Your task to perform on an android device: toggle notification dots Image 0: 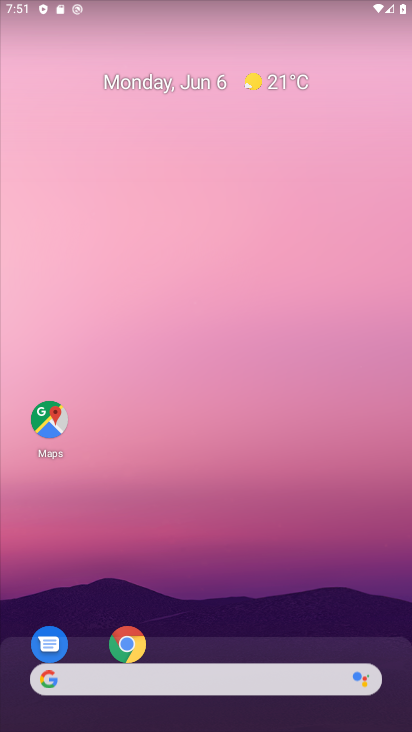
Step 0: drag from (204, 672) to (186, 67)
Your task to perform on an android device: toggle notification dots Image 1: 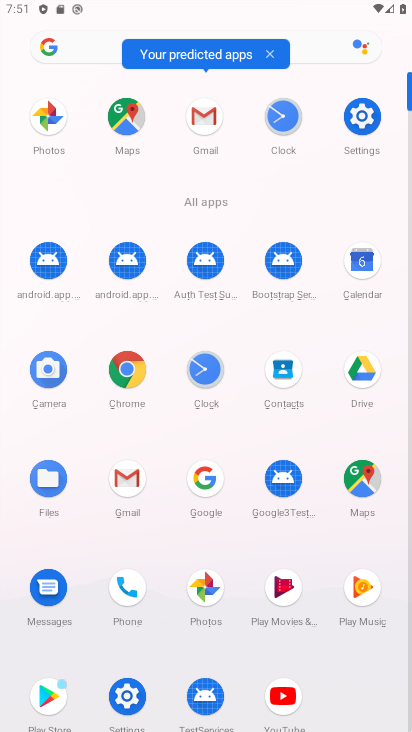
Step 1: click (355, 122)
Your task to perform on an android device: toggle notification dots Image 2: 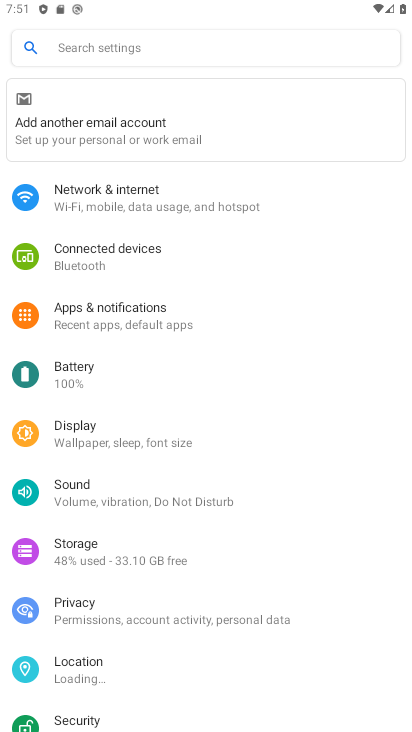
Step 2: drag from (147, 243) to (144, 90)
Your task to perform on an android device: toggle notification dots Image 3: 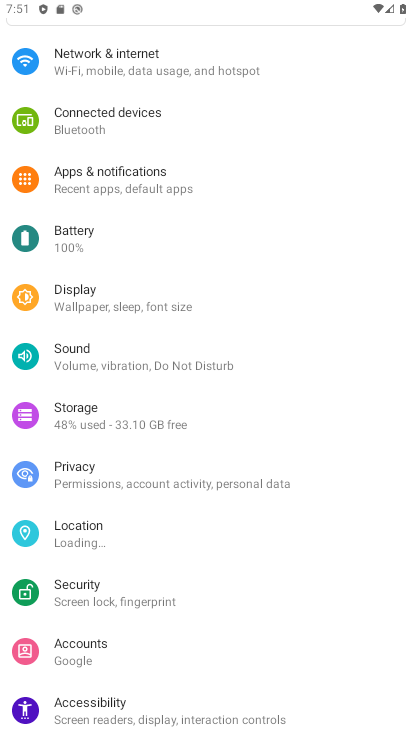
Step 3: click (116, 164)
Your task to perform on an android device: toggle notification dots Image 4: 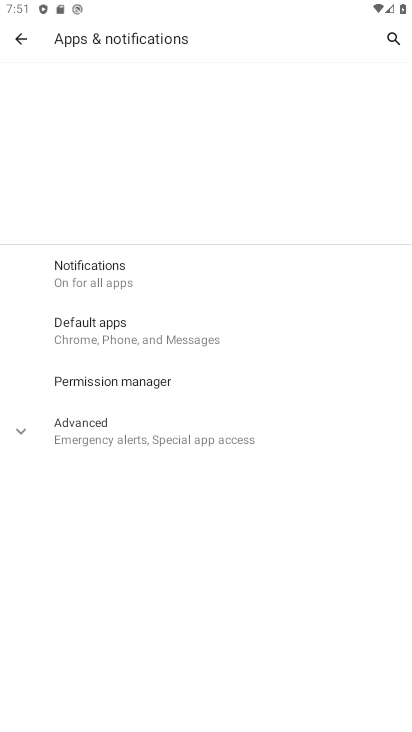
Step 4: click (143, 442)
Your task to perform on an android device: toggle notification dots Image 5: 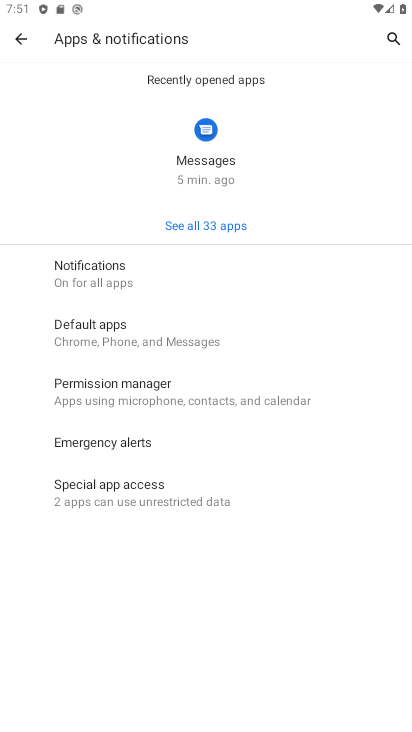
Step 5: click (88, 270)
Your task to perform on an android device: toggle notification dots Image 6: 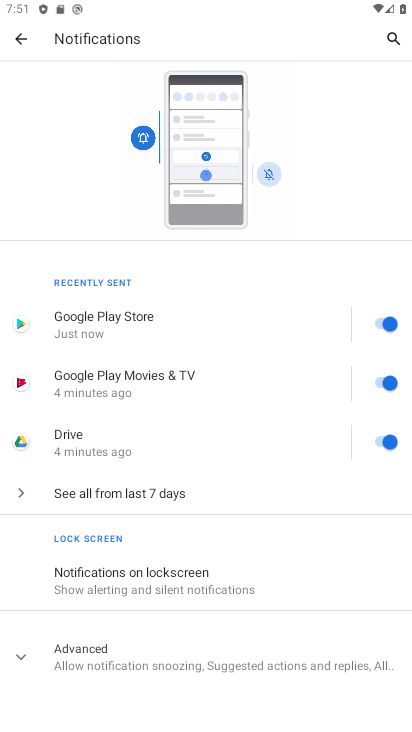
Step 6: drag from (68, 579) to (42, 296)
Your task to perform on an android device: toggle notification dots Image 7: 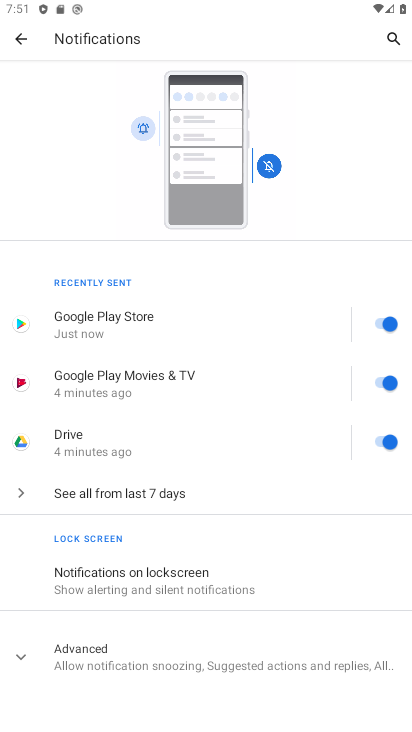
Step 7: click (73, 633)
Your task to perform on an android device: toggle notification dots Image 8: 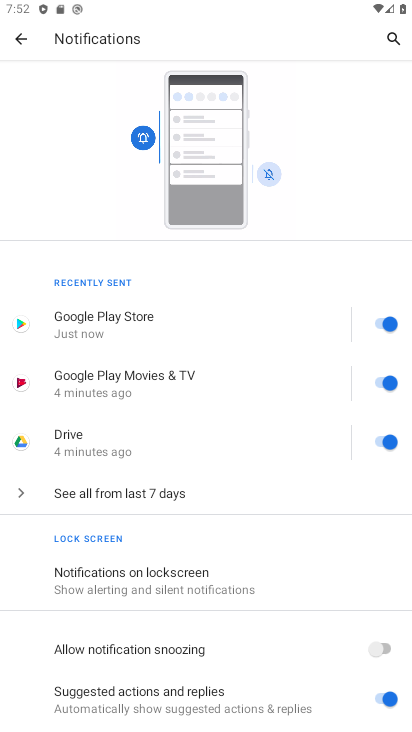
Step 8: drag from (109, 529) to (91, 128)
Your task to perform on an android device: toggle notification dots Image 9: 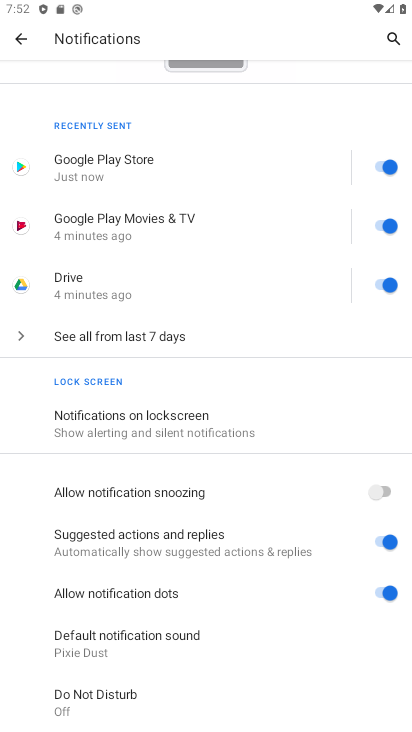
Step 9: drag from (152, 475) to (111, 164)
Your task to perform on an android device: toggle notification dots Image 10: 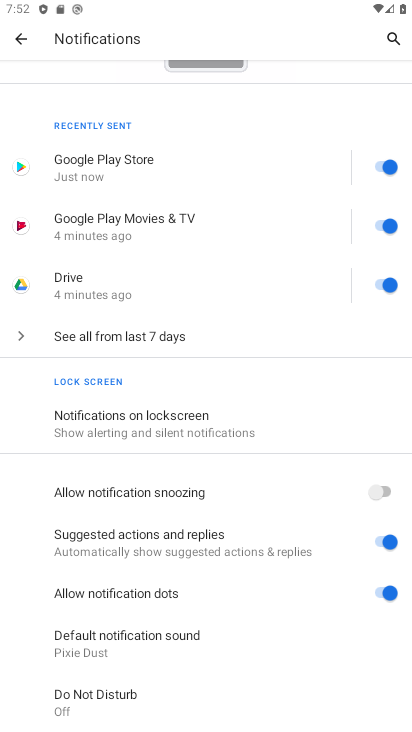
Step 10: click (380, 592)
Your task to perform on an android device: toggle notification dots Image 11: 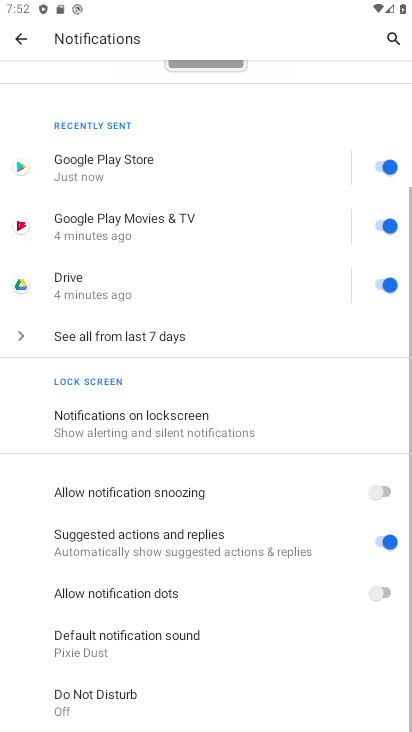
Step 11: task complete